Your task to perform on an android device: Search for pizza restaurants on Maps Image 0: 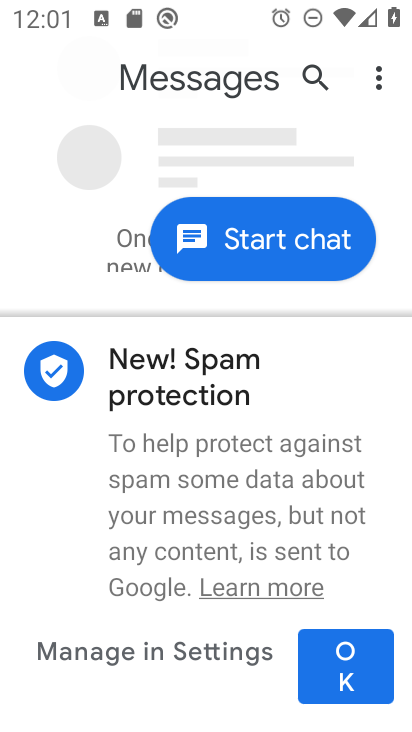
Step 0: press home button
Your task to perform on an android device: Search for pizza restaurants on Maps Image 1: 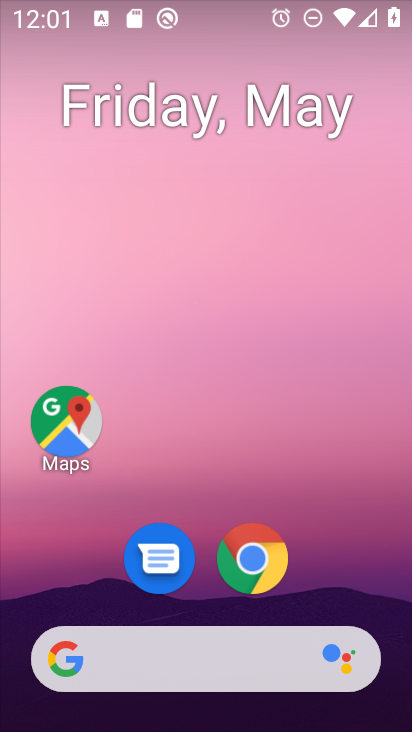
Step 1: click (65, 416)
Your task to perform on an android device: Search for pizza restaurants on Maps Image 2: 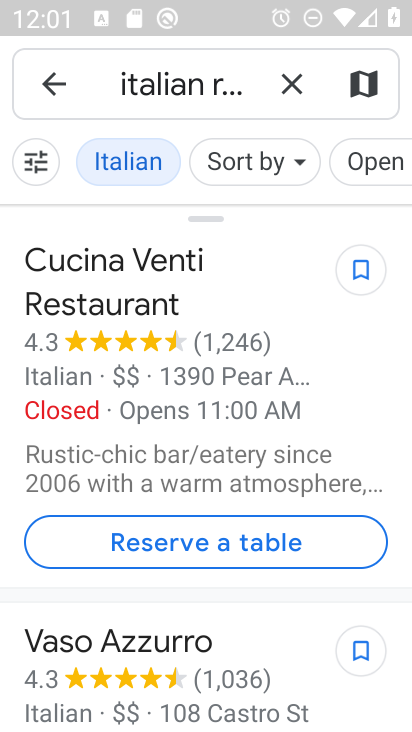
Step 2: click (291, 79)
Your task to perform on an android device: Search for pizza restaurants on Maps Image 3: 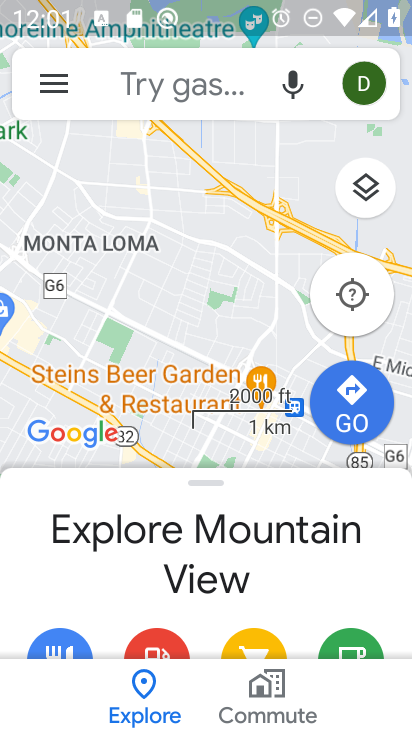
Step 3: click (144, 85)
Your task to perform on an android device: Search for pizza restaurants on Maps Image 4: 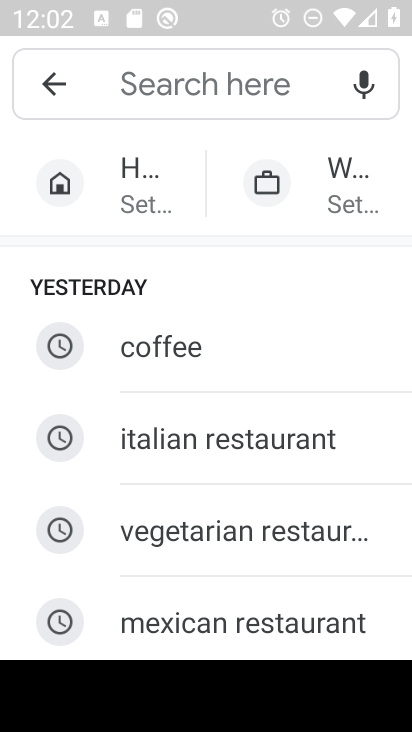
Step 4: type "pizza restaurants"
Your task to perform on an android device: Search for pizza restaurants on Maps Image 5: 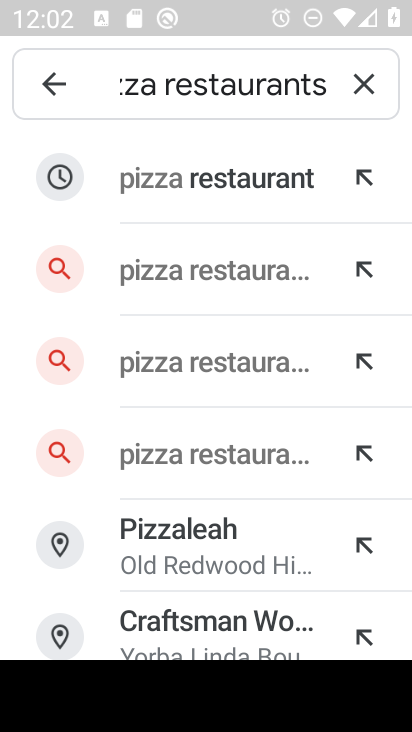
Step 5: click (188, 183)
Your task to perform on an android device: Search for pizza restaurants on Maps Image 6: 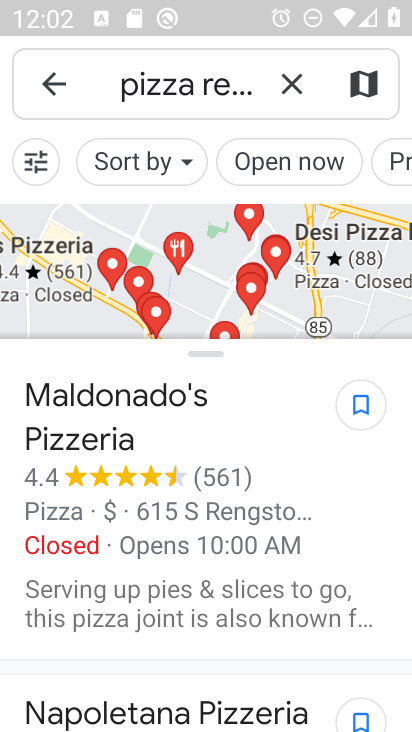
Step 6: task complete